Your task to perform on an android device: Open maps Image 0: 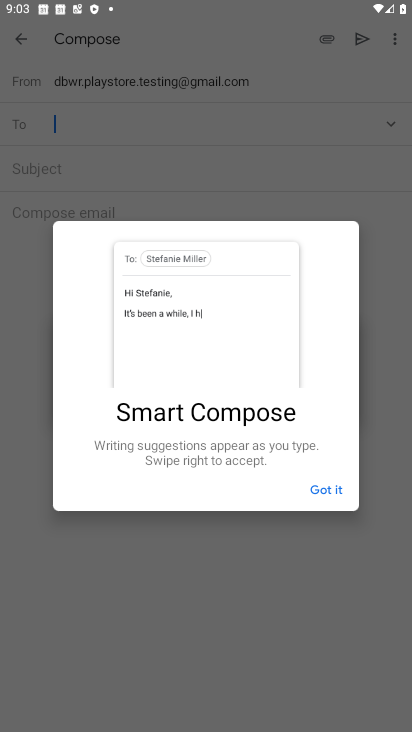
Step 0: press home button
Your task to perform on an android device: Open maps Image 1: 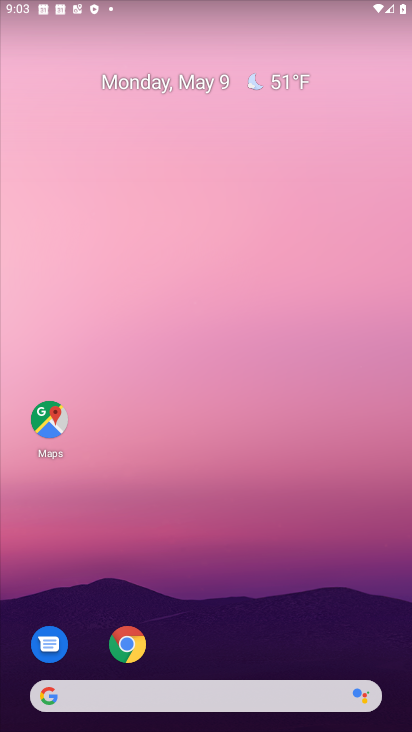
Step 1: drag from (215, 678) to (197, 1)
Your task to perform on an android device: Open maps Image 2: 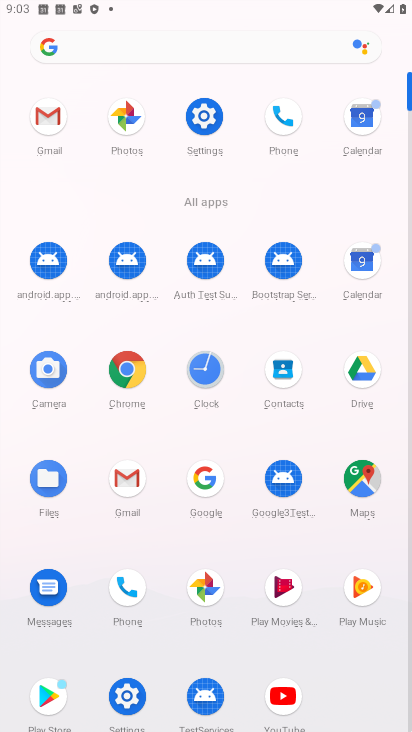
Step 2: click (368, 498)
Your task to perform on an android device: Open maps Image 3: 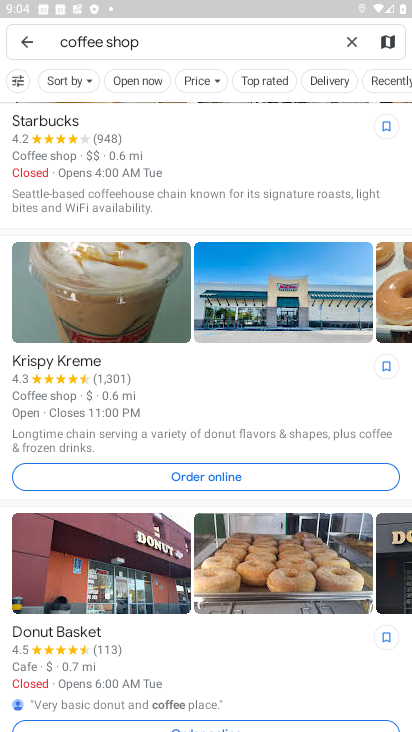
Step 3: task complete